Your task to perform on an android device: turn off javascript in the chrome app Image 0: 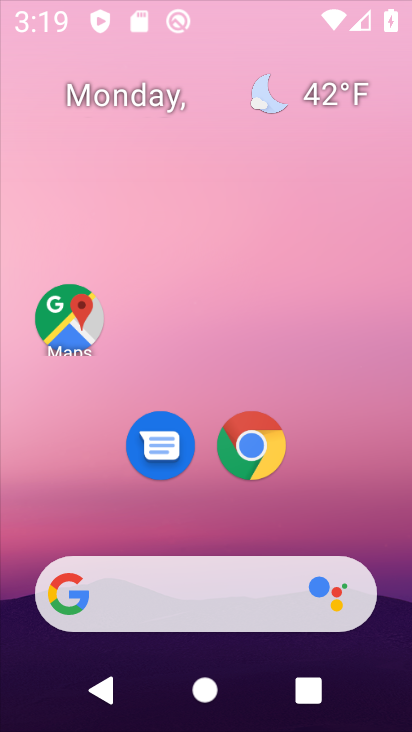
Step 0: click (195, 52)
Your task to perform on an android device: turn off javascript in the chrome app Image 1: 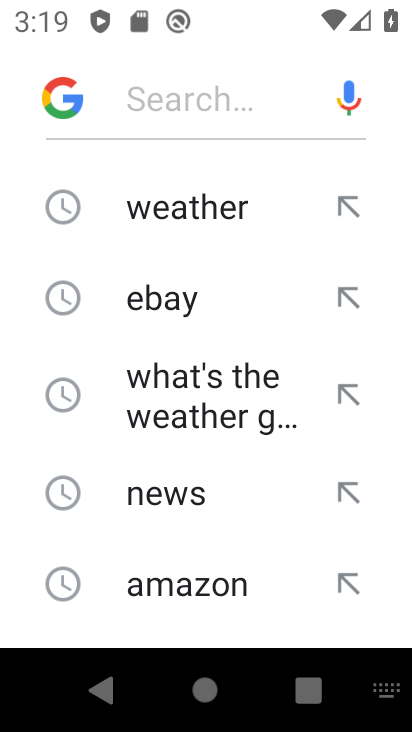
Step 1: press home button
Your task to perform on an android device: turn off javascript in the chrome app Image 2: 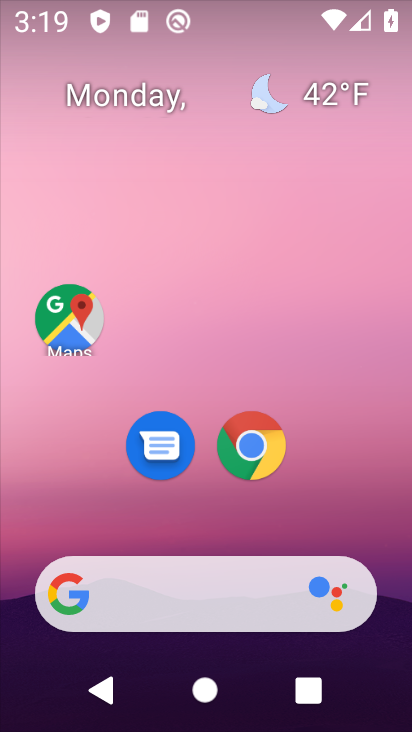
Step 2: drag from (42, 449) to (169, 59)
Your task to perform on an android device: turn off javascript in the chrome app Image 3: 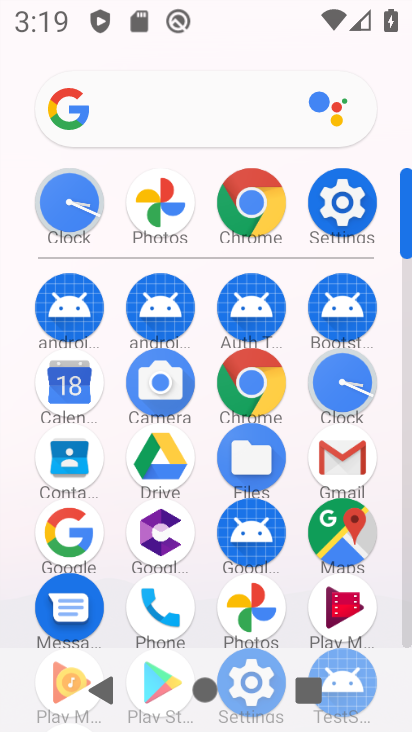
Step 3: click (222, 384)
Your task to perform on an android device: turn off javascript in the chrome app Image 4: 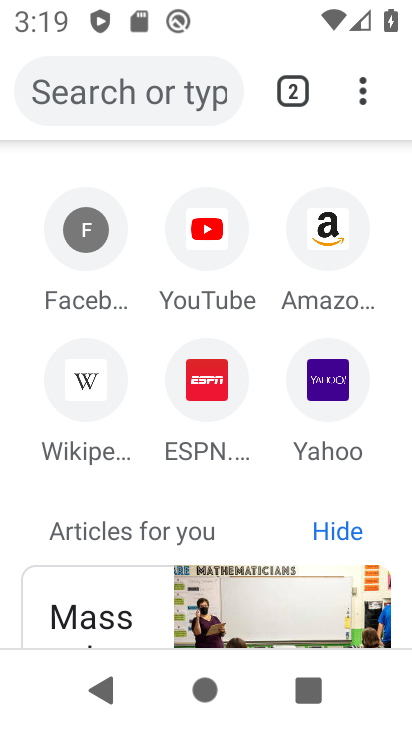
Step 4: click (367, 86)
Your task to perform on an android device: turn off javascript in the chrome app Image 5: 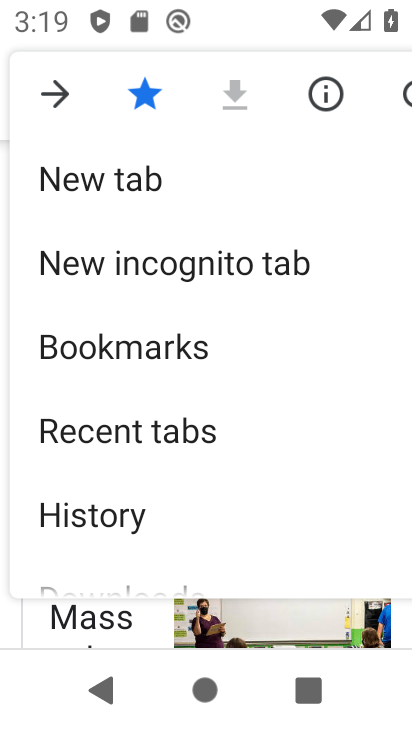
Step 5: drag from (168, 549) to (168, 54)
Your task to perform on an android device: turn off javascript in the chrome app Image 6: 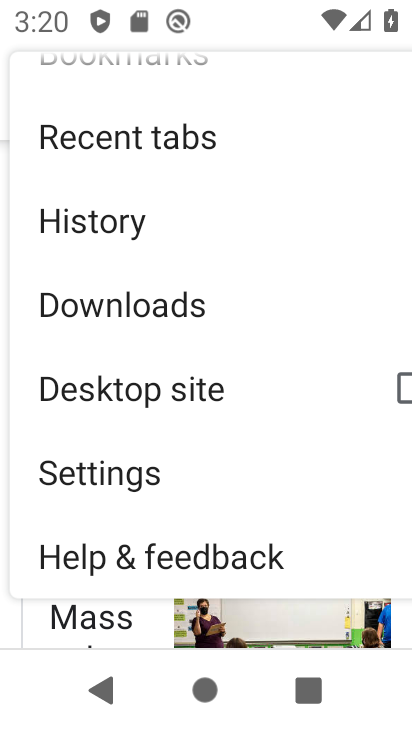
Step 6: click (171, 463)
Your task to perform on an android device: turn off javascript in the chrome app Image 7: 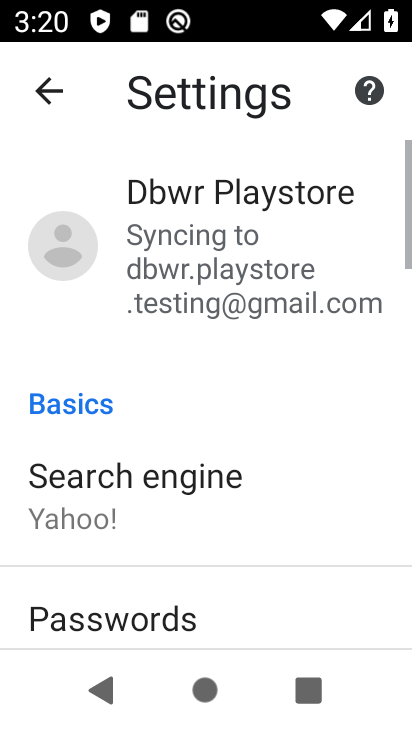
Step 7: drag from (161, 592) to (196, 78)
Your task to perform on an android device: turn off javascript in the chrome app Image 8: 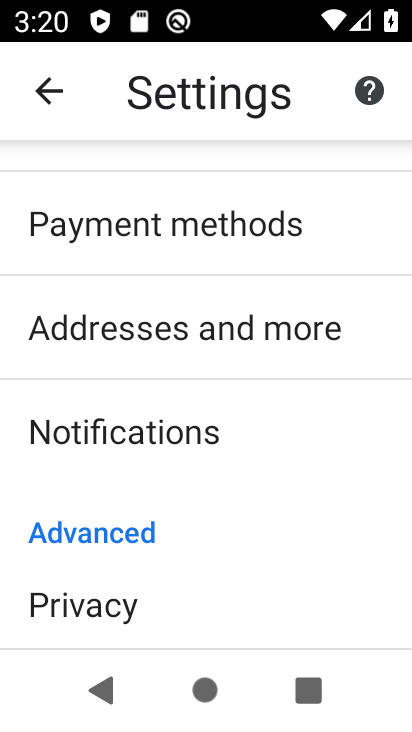
Step 8: drag from (159, 629) to (220, 164)
Your task to perform on an android device: turn off javascript in the chrome app Image 9: 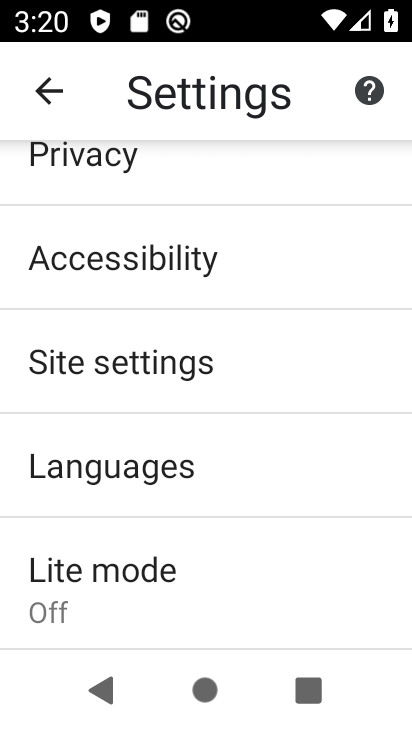
Step 9: click (222, 387)
Your task to perform on an android device: turn off javascript in the chrome app Image 10: 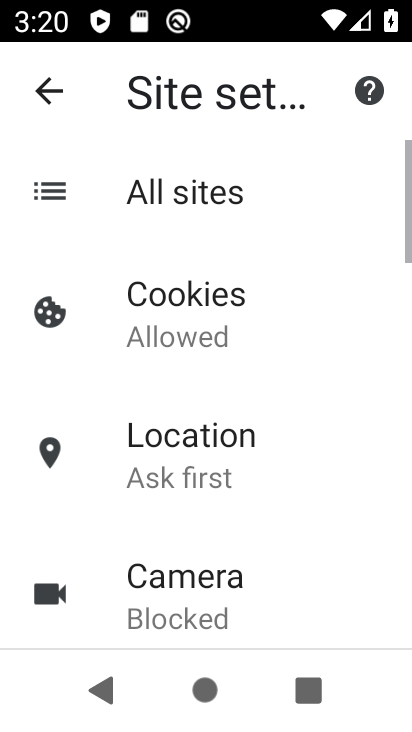
Step 10: drag from (98, 617) to (140, 246)
Your task to perform on an android device: turn off javascript in the chrome app Image 11: 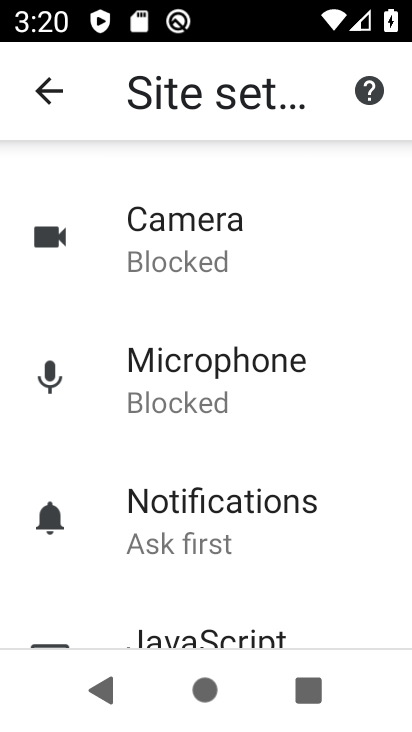
Step 11: drag from (222, 584) to (308, 196)
Your task to perform on an android device: turn off javascript in the chrome app Image 12: 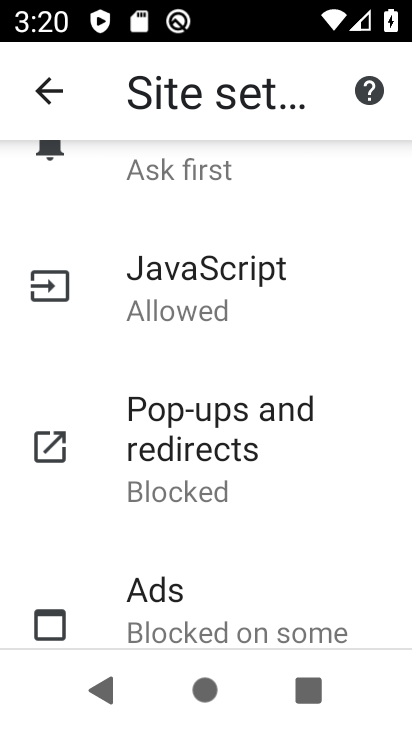
Step 12: click (292, 285)
Your task to perform on an android device: turn off javascript in the chrome app Image 13: 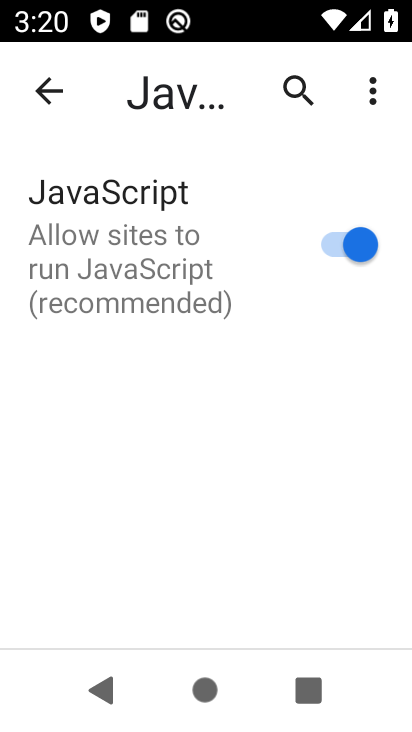
Step 13: click (275, 243)
Your task to perform on an android device: turn off javascript in the chrome app Image 14: 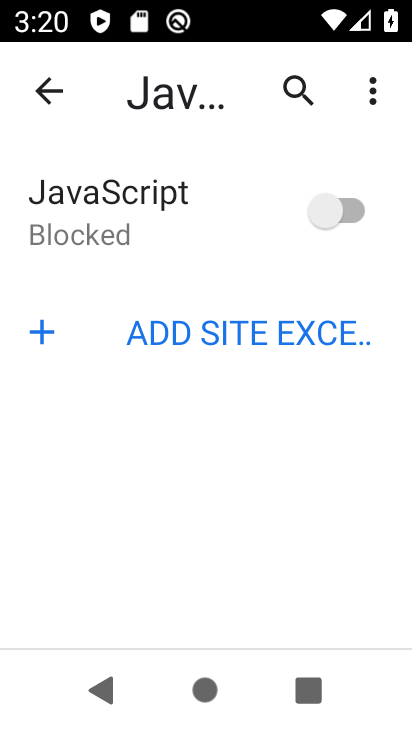
Step 14: task complete